Your task to perform on an android device: Open Reddit.com Image 0: 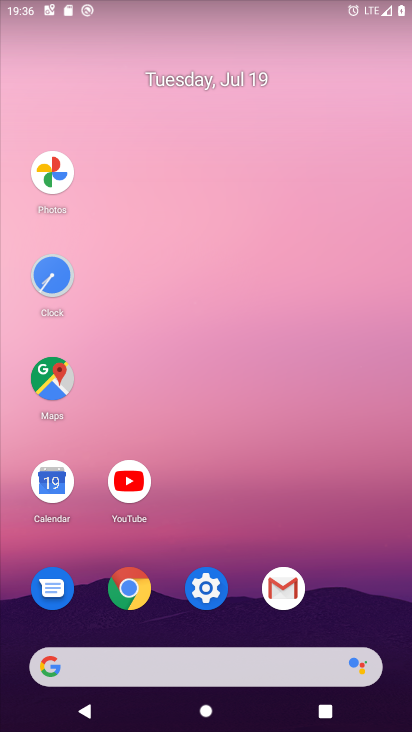
Step 0: click (122, 583)
Your task to perform on an android device: Open Reddit.com Image 1: 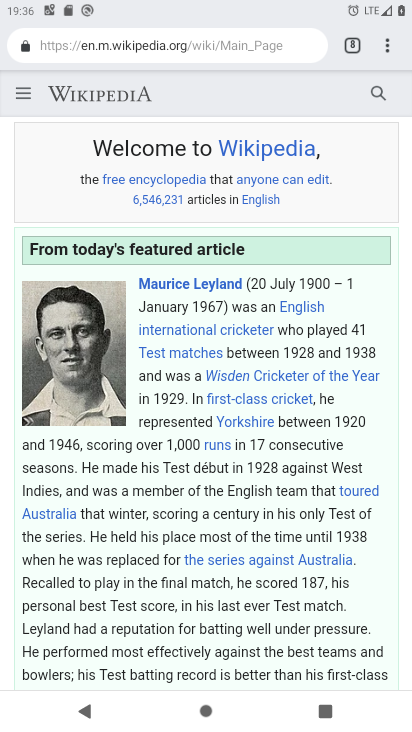
Step 1: click (389, 34)
Your task to perform on an android device: Open Reddit.com Image 2: 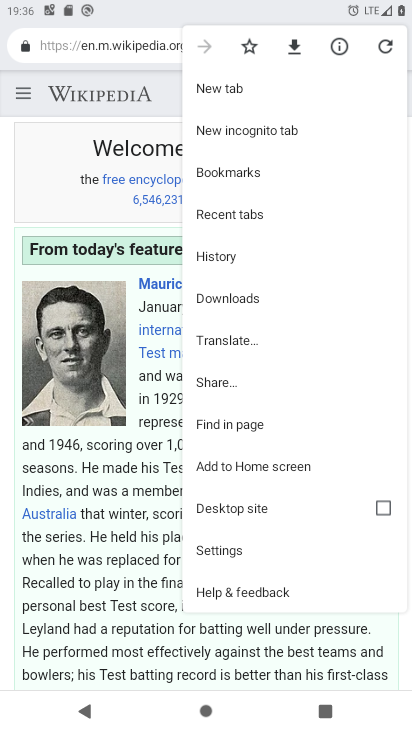
Step 2: click (233, 82)
Your task to perform on an android device: Open Reddit.com Image 3: 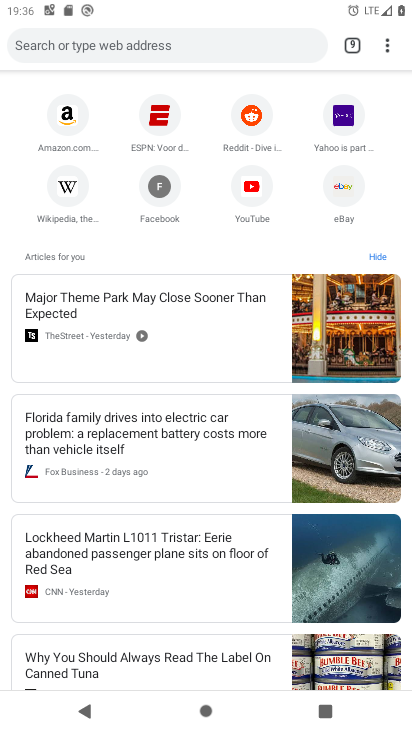
Step 3: click (254, 114)
Your task to perform on an android device: Open Reddit.com Image 4: 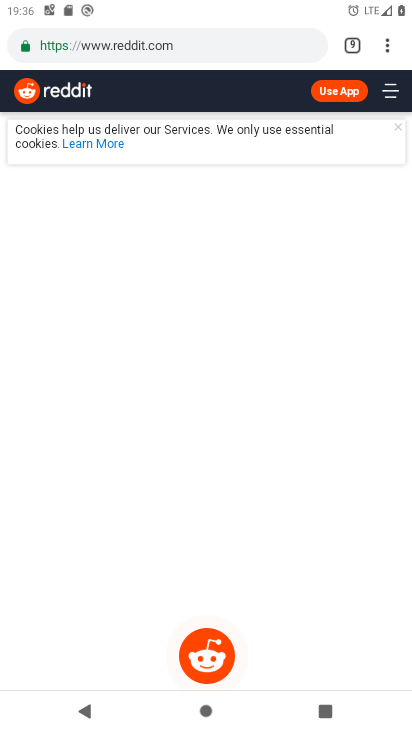
Step 4: task complete